Your task to perform on an android device: toggle pop-ups in chrome Image 0: 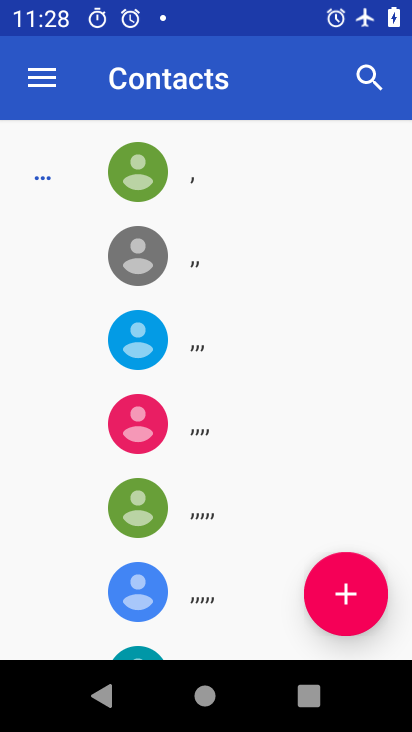
Step 0: press home button
Your task to perform on an android device: toggle pop-ups in chrome Image 1: 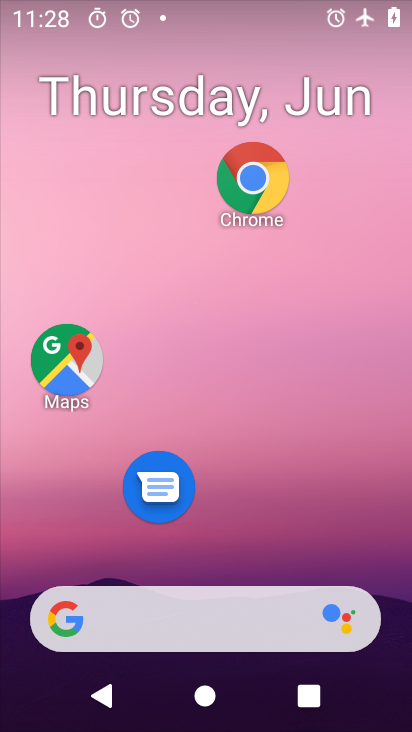
Step 1: drag from (237, 719) to (233, 90)
Your task to perform on an android device: toggle pop-ups in chrome Image 2: 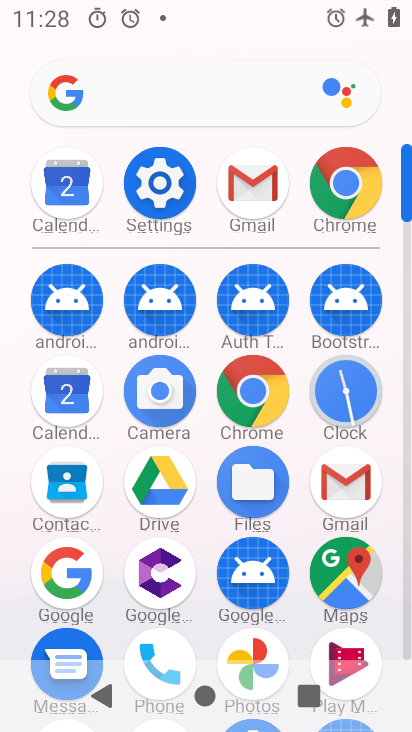
Step 2: click (352, 192)
Your task to perform on an android device: toggle pop-ups in chrome Image 3: 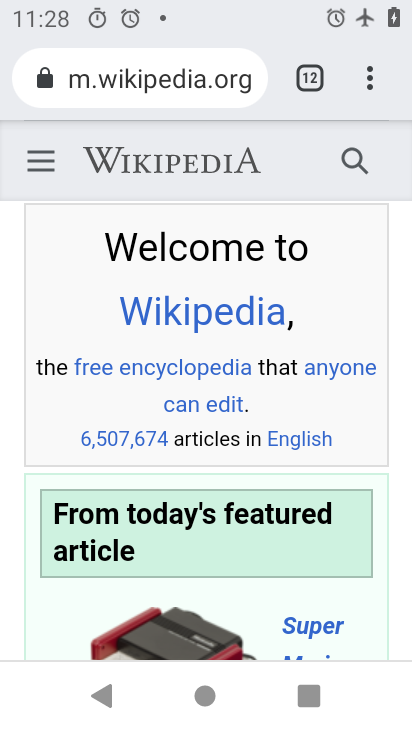
Step 3: click (370, 86)
Your task to perform on an android device: toggle pop-ups in chrome Image 4: 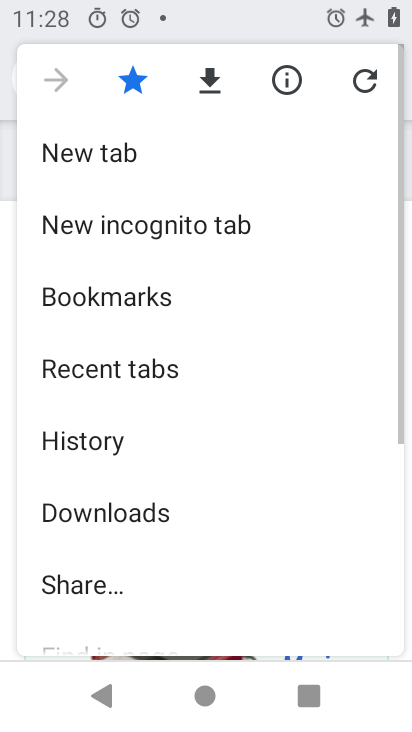
Step 4: drag from (133, 616) to (133, 163)
Your task to perform on an android device: toggle pop-ups in chrome Image 5: 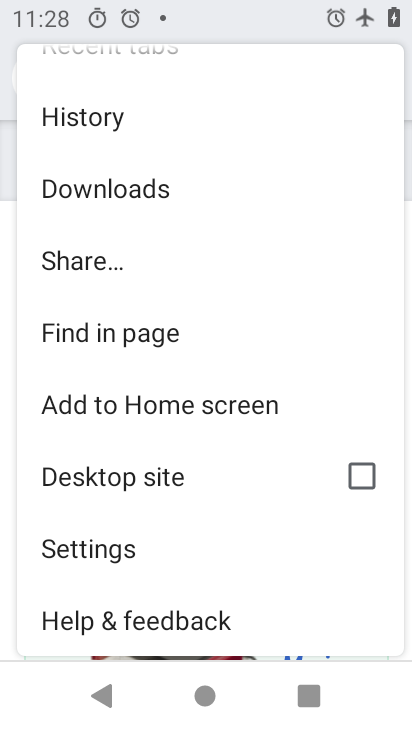
Step 5: click (98, 554)
Your task to perform on an android device: toggle pop-ups in chrome Image 6: 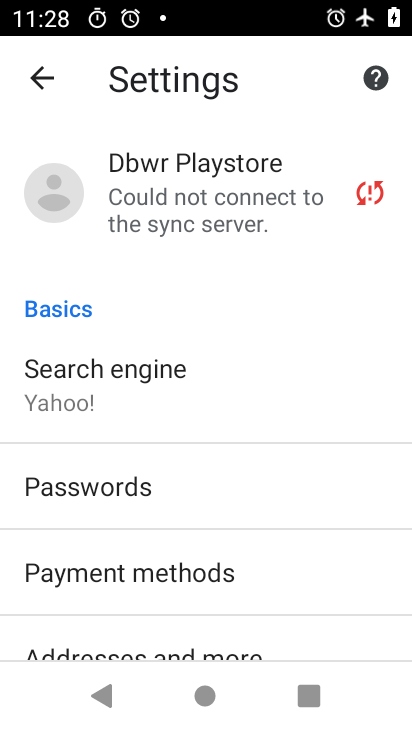
Step 6: drag from (105, 649) to (110, 285)
Your task to perform on an android device: toggle pop-ups in chrome Image 7: 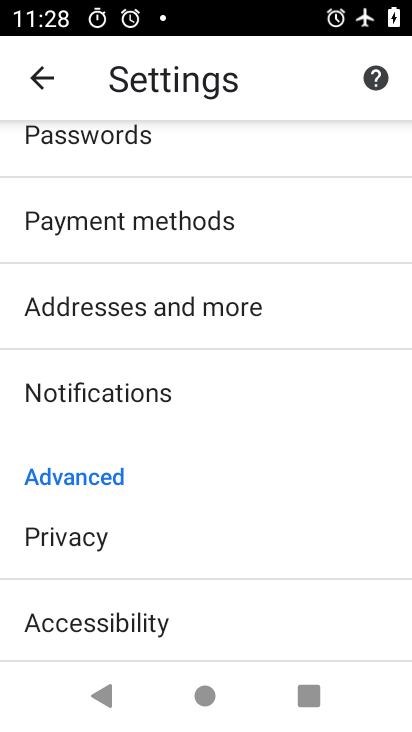
Step 7: drag from (110, 629) to (113, 204)
Your task to perform on an android device: toggle pop-ups in chrome Image 8: 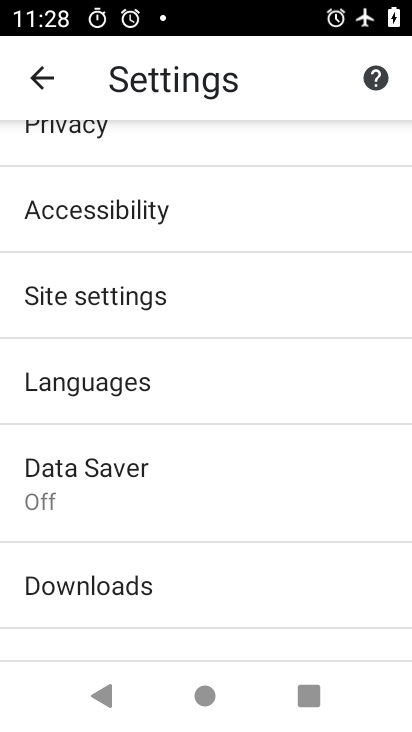
Step 8: click (104, 300)
Your task to perform on an android device: toggle pop-ups in chrome Image 9: 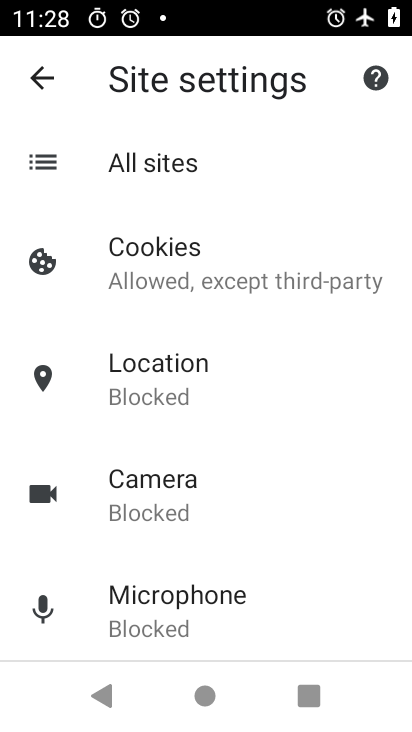
Step 9: drag from (180, 615) to (179, 165)
Your task to perform on an android device: toggle pop-ups in chrome Image 10: 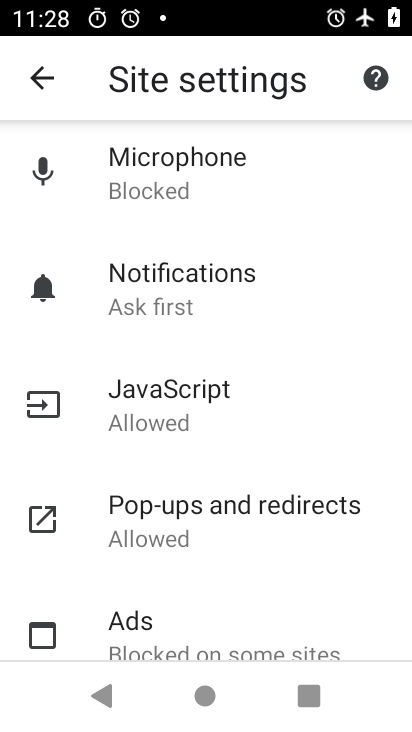
Step 10: drag from (159, 629) to (178, 219)
Your task to perform on an android device: toggle pop-ups in chrome Image 11: 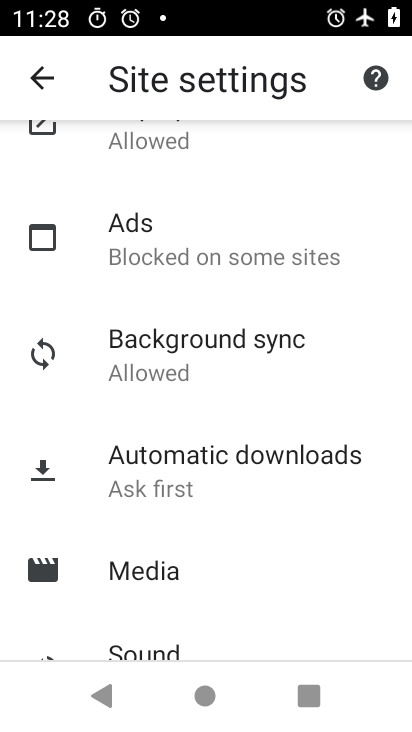
Step 11: drag from (224, 196) to (224, 582)
Your task to perform on an android device: toggle pop-ups in chrome Image 12: 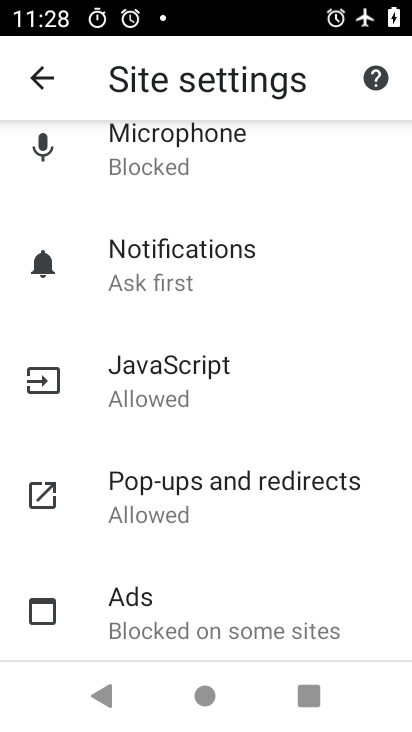
Step 12: click (169, 497)
Your task to perform on an android device: toggle pop-ups in chrome Image 13: 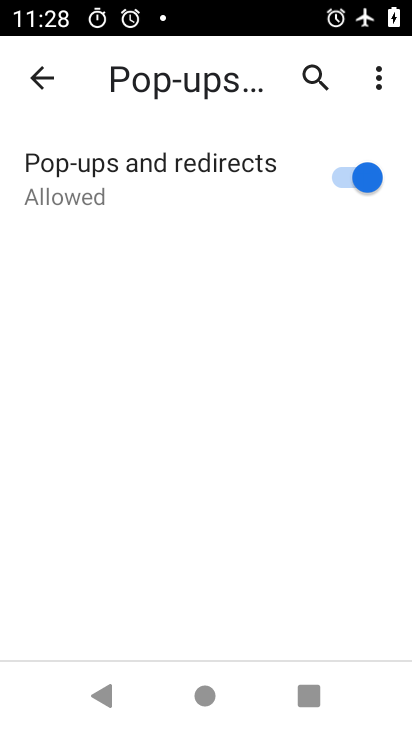
Step 13: task complete